Your task to perform on an android device: refresh tabs in the chrome app Image 0: 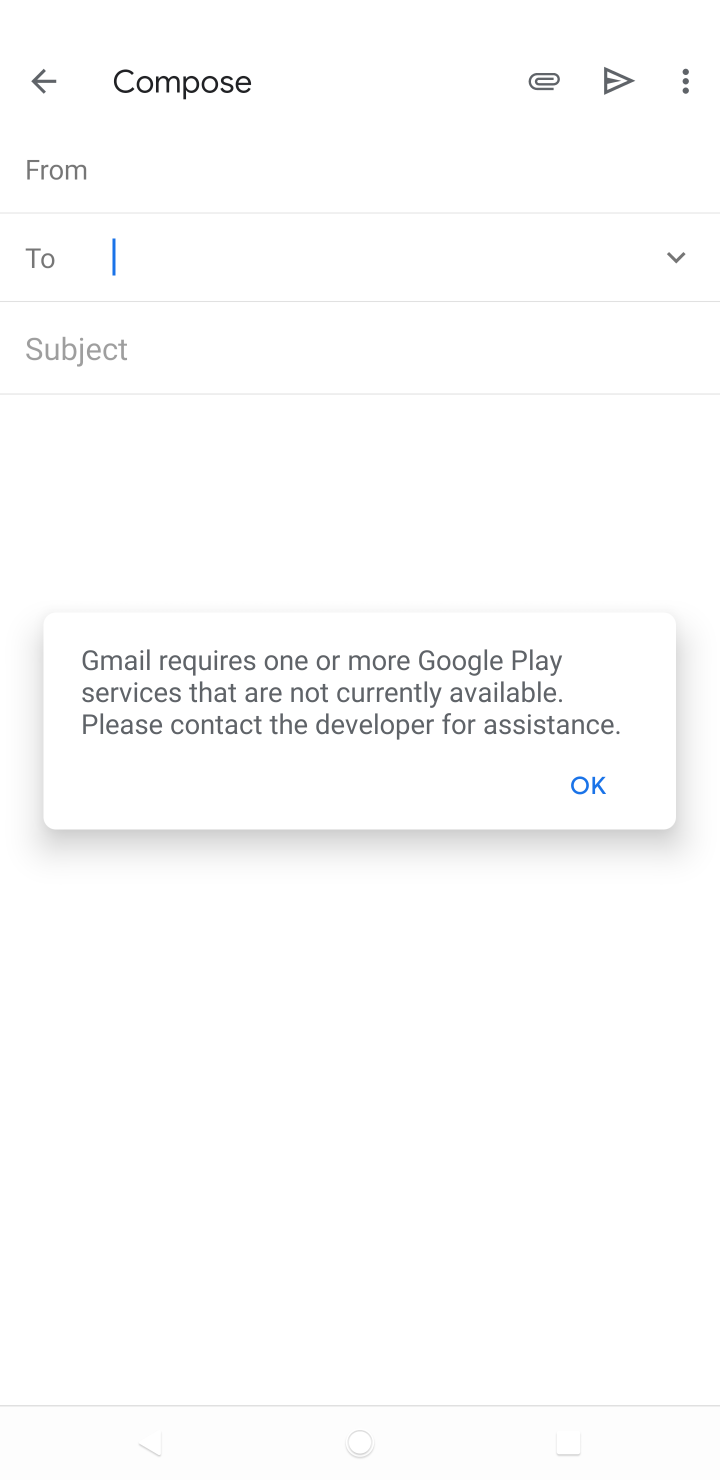
Step 0: click (282, 263)
Your task to perform on an android device: refresh tabs in the chrome app Image 1: 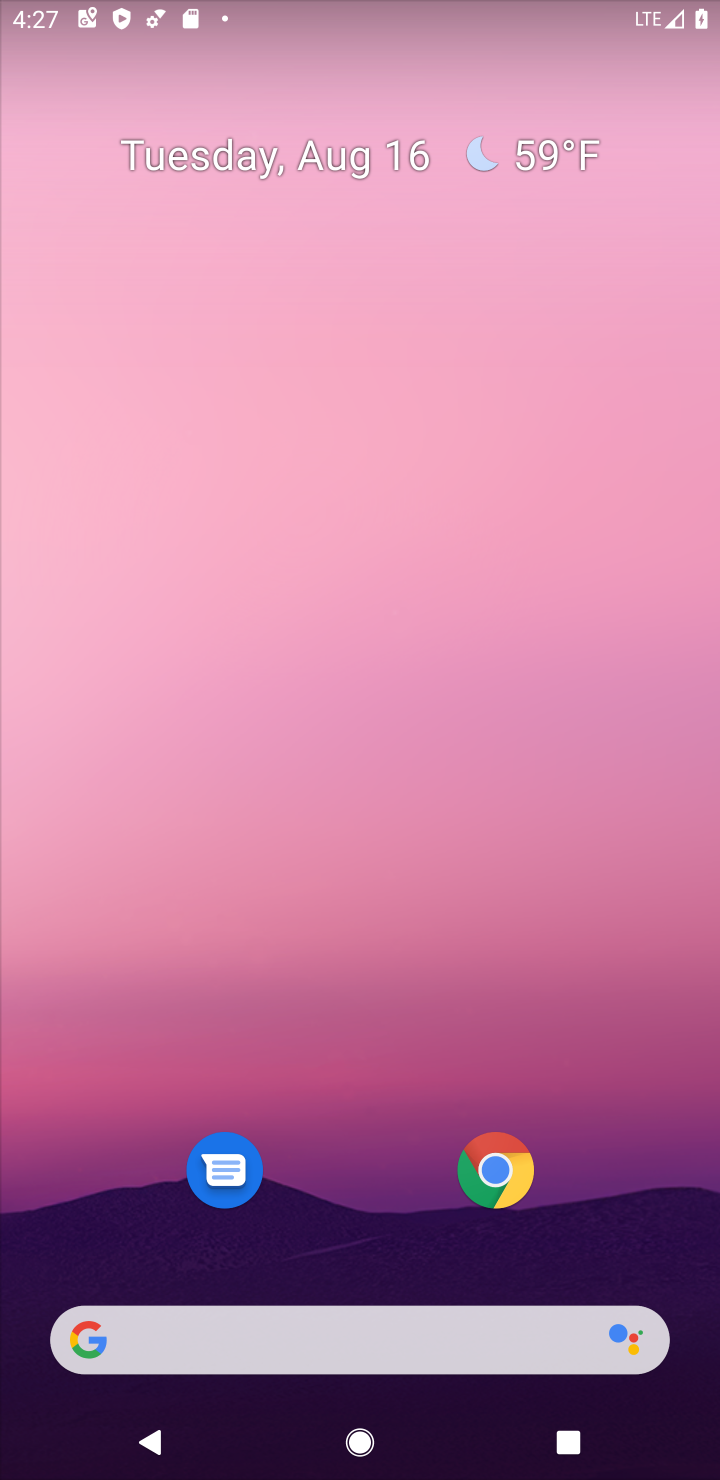
Step 1: drag from (399, 1225) to (280, 137)
Your task to perform on an android device: refresh tabs in the chrome app Image 2: 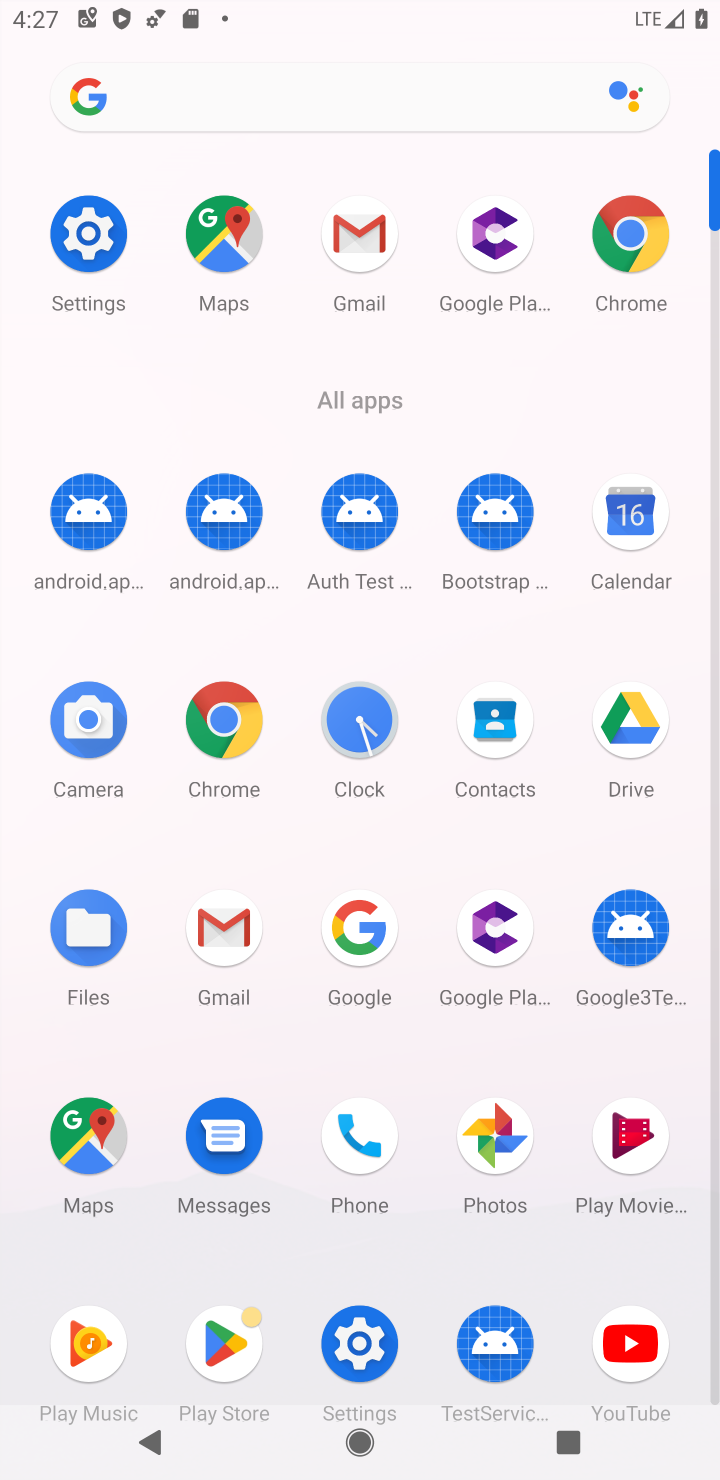
Step 2: click (231, 724)
Your task to perform on an android device: refresh tabs in the chrome app Image 3: 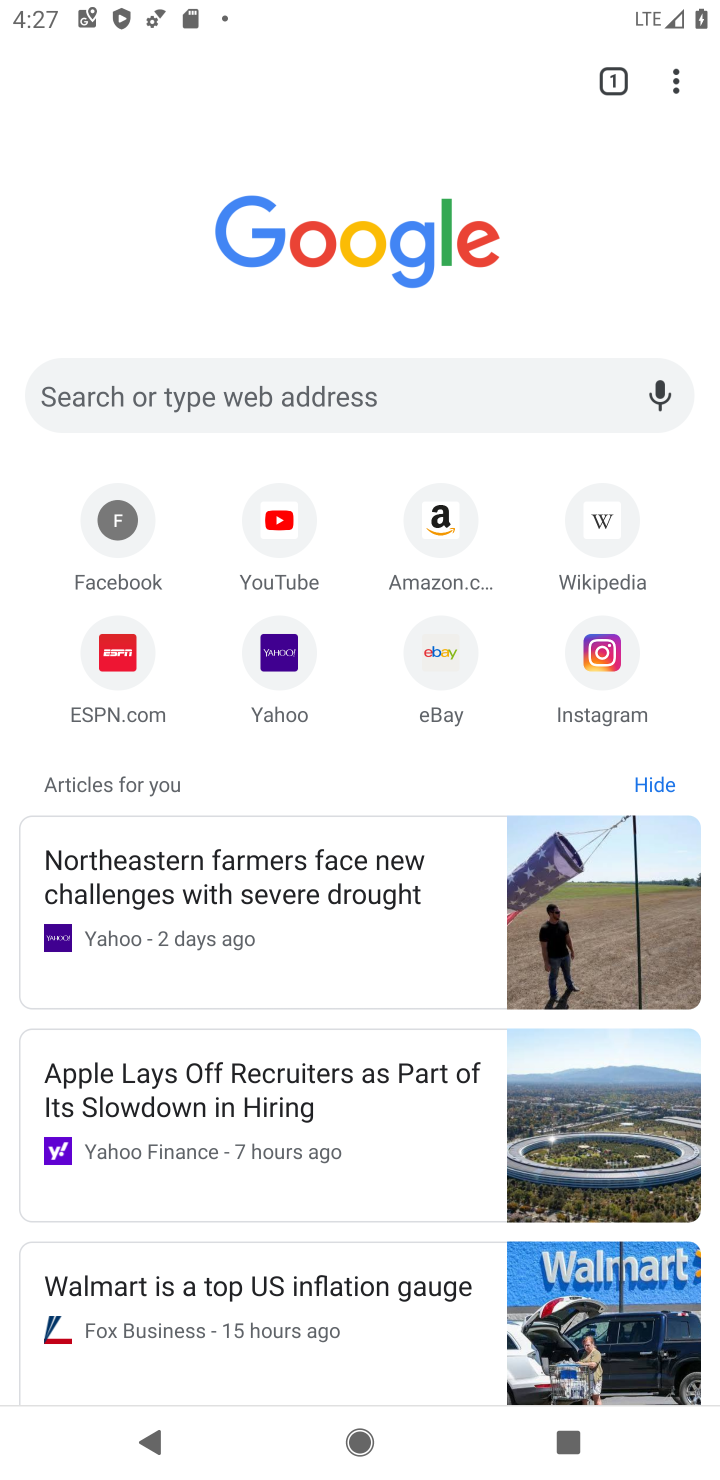
Step 3: click (684, 76)
Your task to perform on an android device: refresh tabs in the chrome app Image 4: 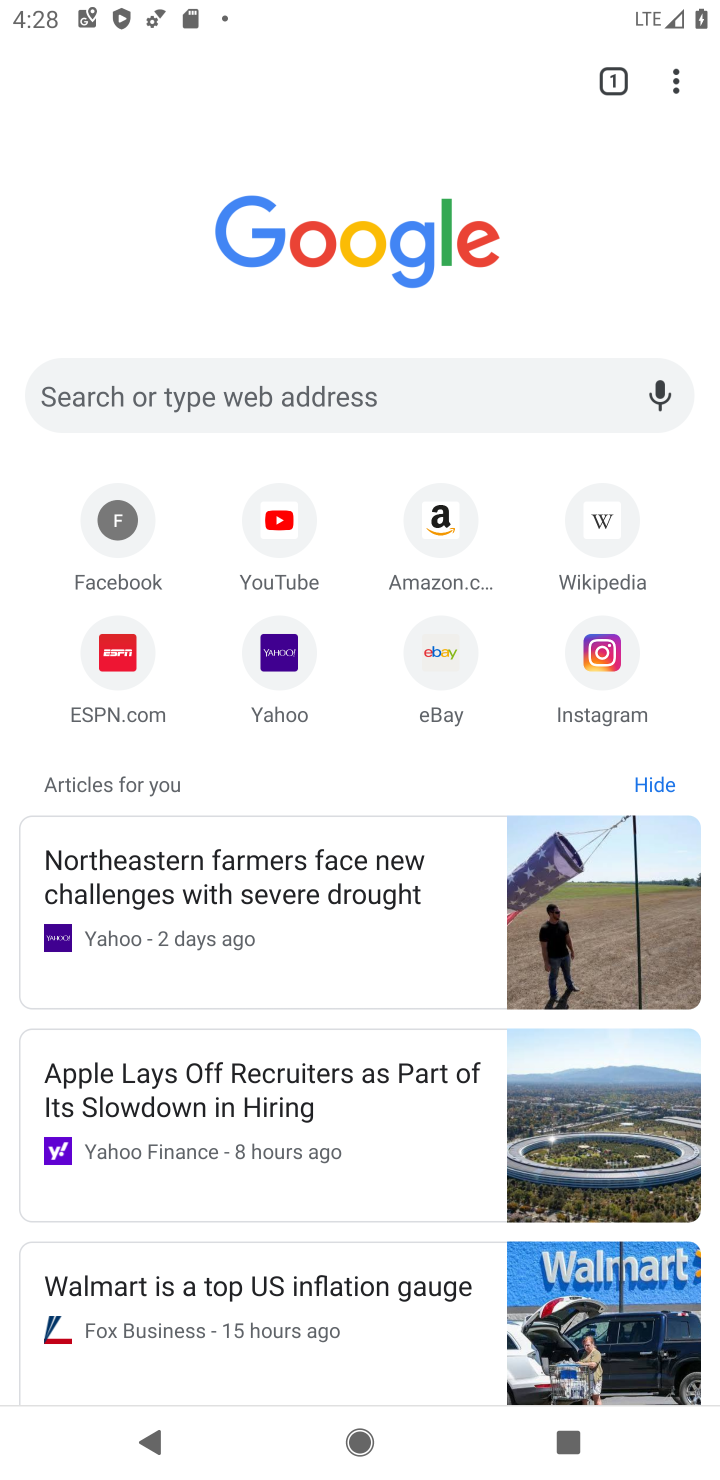
Step 4: click (667, 91)
Your task to perform on an android device: refresh tabs in the chrome app Image 5: 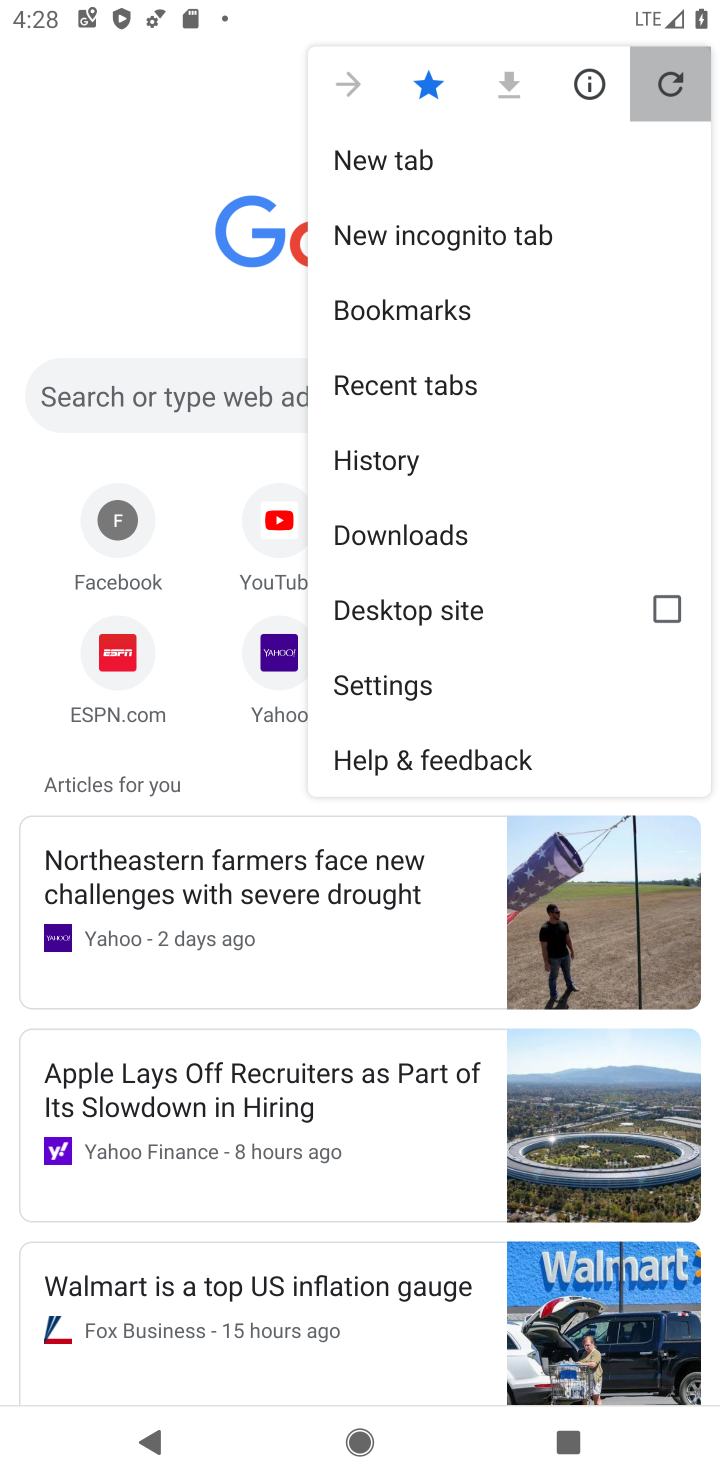
Step 5: click (667, 91)
Your task to perform on an android device: refresh tabs in the chrome app Image 6: 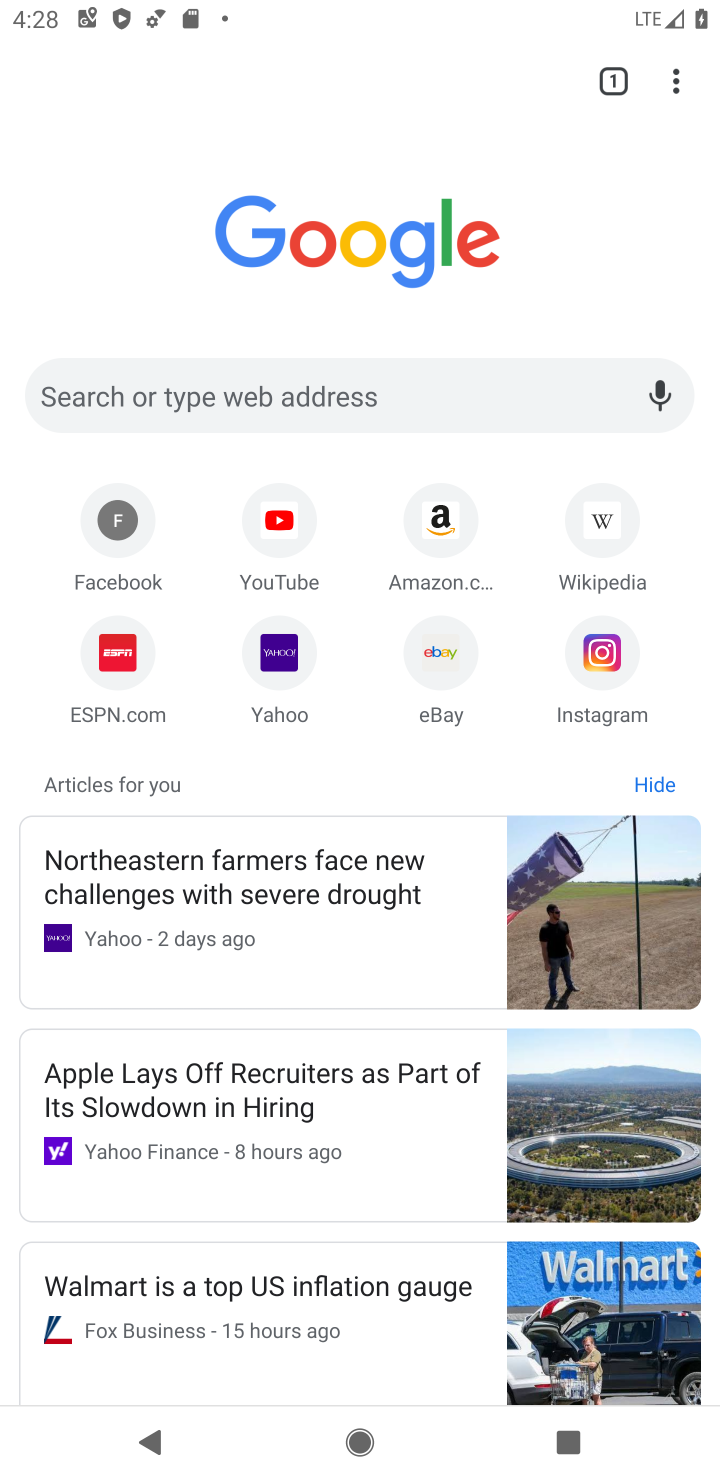
Step 6: task complete